Your task to perform on an android device: move a message to another label in the gmail app Image 0: 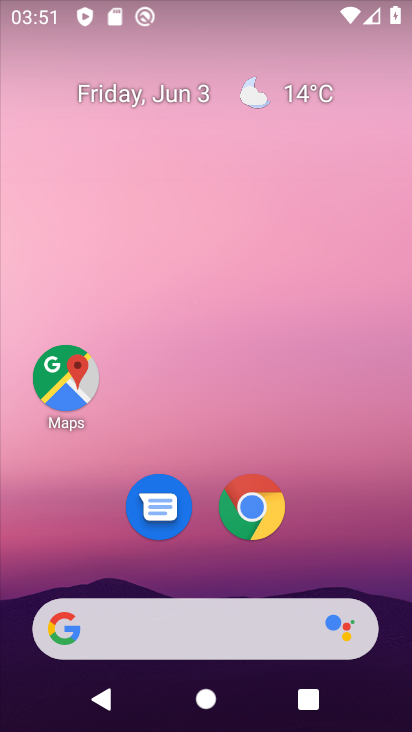
Step 0: press home button
Your task to perform on an android device: move a message to another label in the gmail app Image 1: 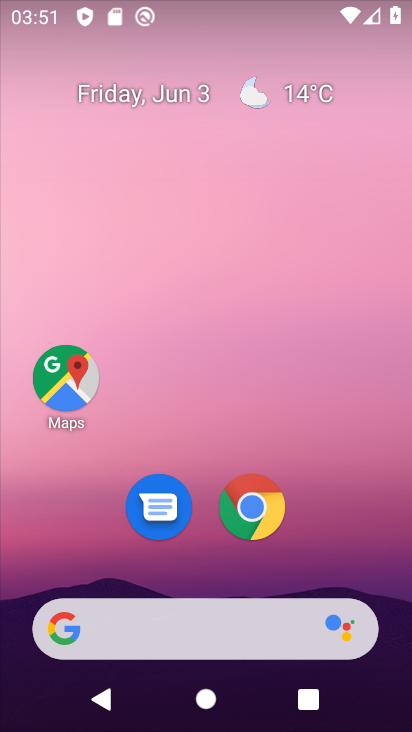
Step 1: drag from (228, 566) to (254, 136)
Your task to perform on an android device: move a message to another label in the gmail app Image 2: 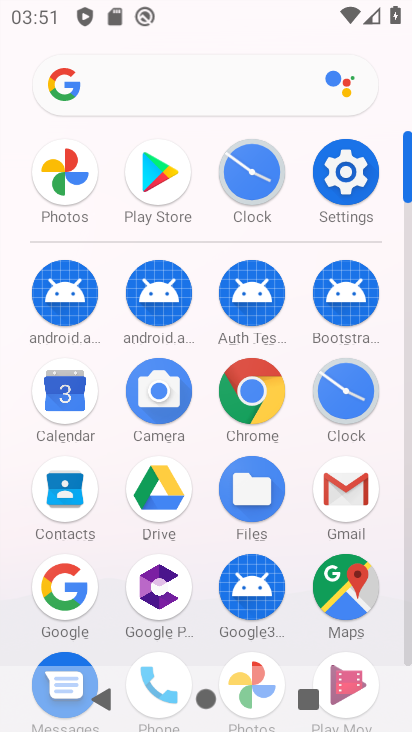
Step 2: click (335, 480)
Your task to perform on an android device: move a message to another label in the gmail app Image 3: 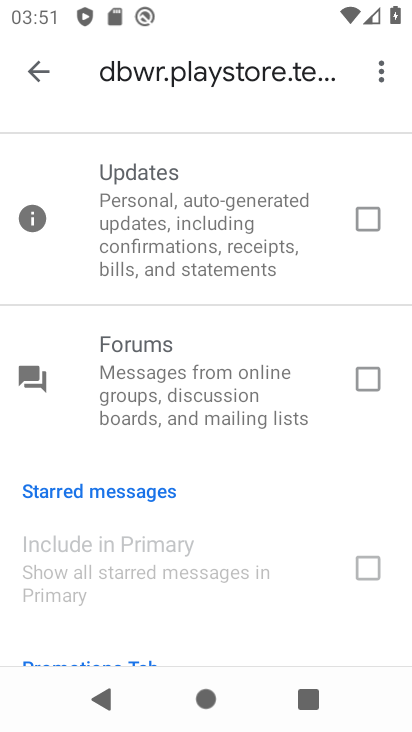
Step 3: click (39, 76)
Your task to perform on an android device: move a message to another label in the gmail app Image 4: 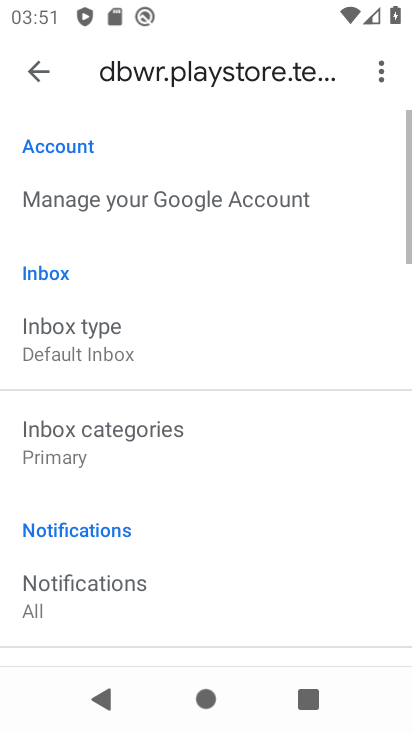
Step 4: click (39, 76)
Your task to perform on an android device: move a message to another label in the gmail app Image 5: 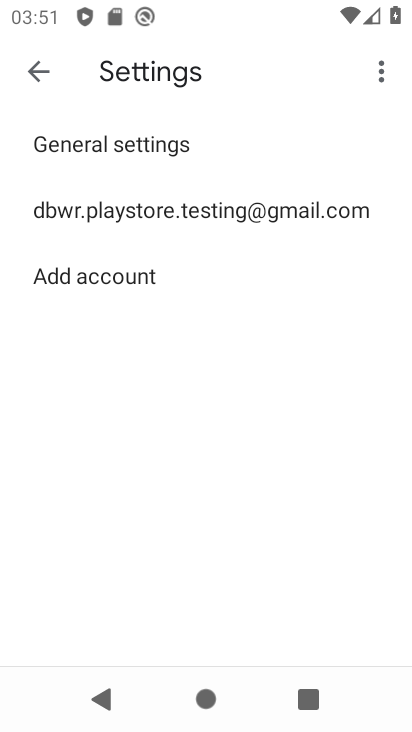
Step 5: click (40, 75)
Your task to perform on an android device: move a message to another label in the gmail app Image 6: 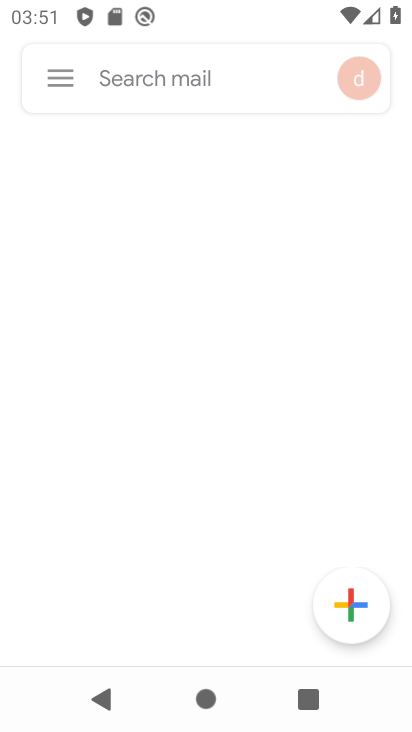
Step 6: click (52, 77)
Your task to perform on an android device: move a message to another label in the gmail app Image 7: 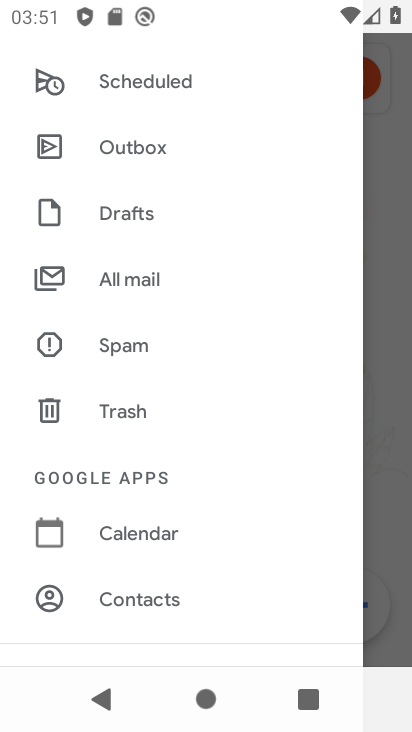
Step 7: click (119, 282)
Your task to perform on an android device: move a message to another label in the gmail app Image 8: 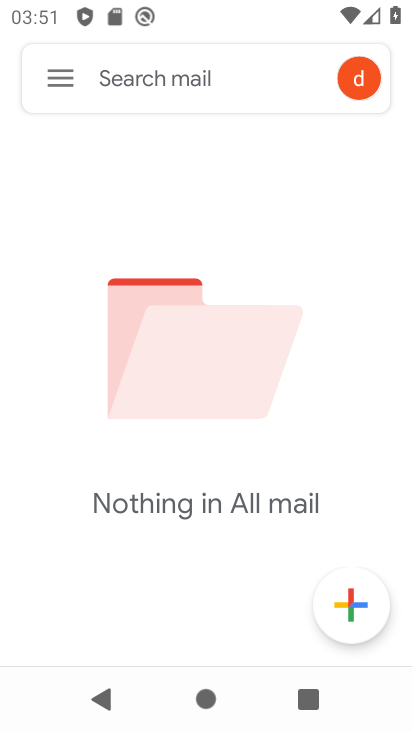
Step 8: task complete